Your task to perform on an android device: toggle wifi Image 0: 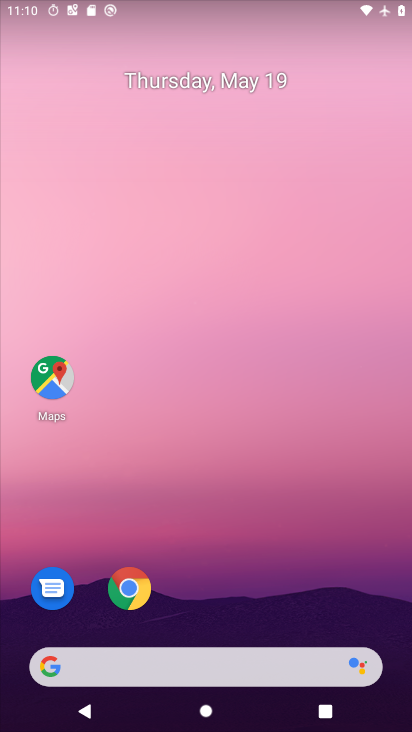
Step 0: press home button
Your task to perform on an android device: toggle wifi Image 1: 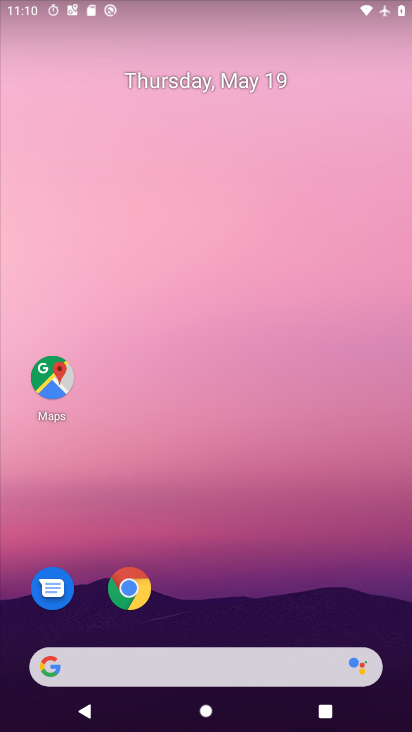
Step 1: drag from (168, 625) to (247, 119)
Your task to perform on an android device: toggle wifi Image 2: 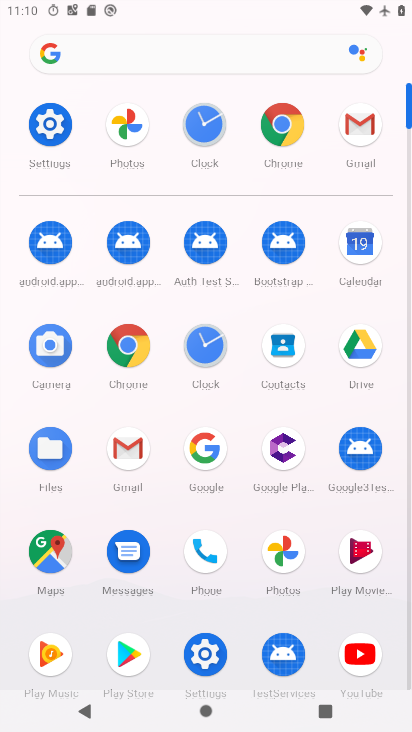
Step 2: click (61, 133)
Your task to perform on an android device: toggle wifi Image 3: 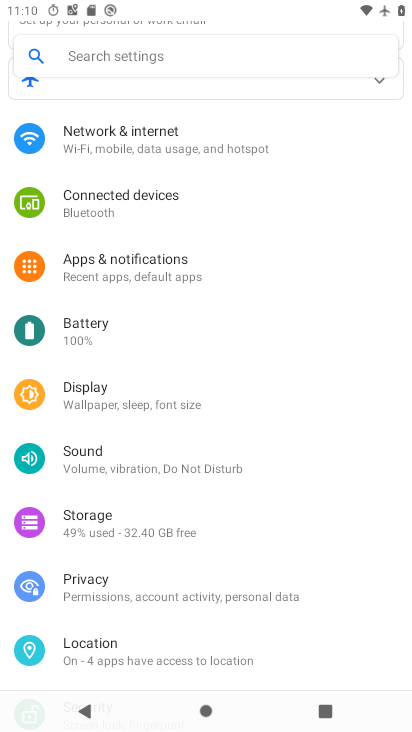
Step 3: click (166, 143)
Your task to perform on an android device: toggle wifi Image 4: 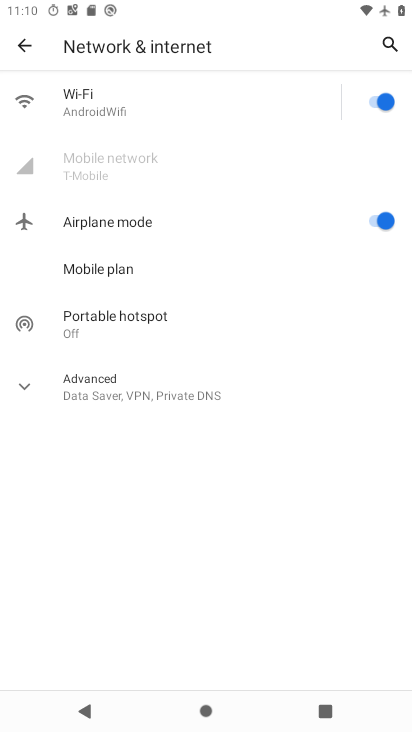
Step 4: click (374, 101)
Your task to perform on an android device: toggle wifi Image 5: 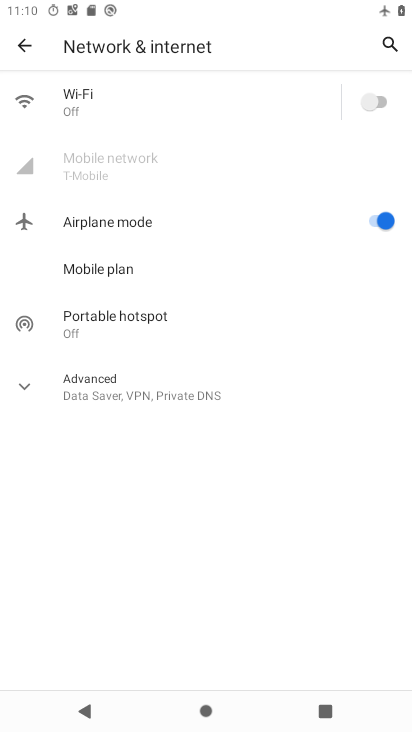
Step 5: task complete